Your task to perform on an android device: Open the calendar app, open the side menu, and click the "Day" option Image 0: 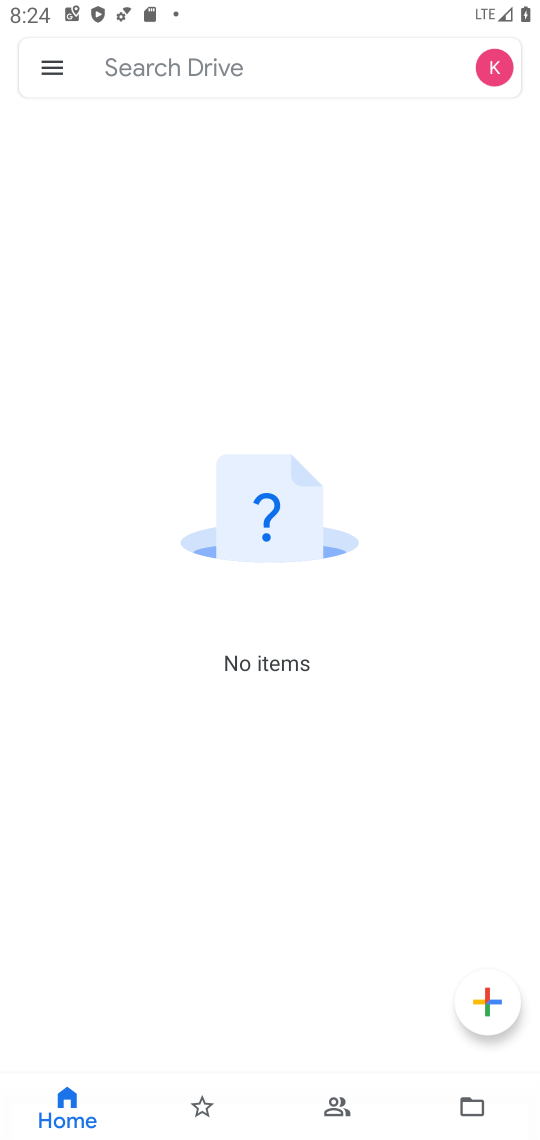
Step 0: press home button
Your task to perform on an android device: Open the calendar app, open the side menu, and click the "Day" option Image 1: 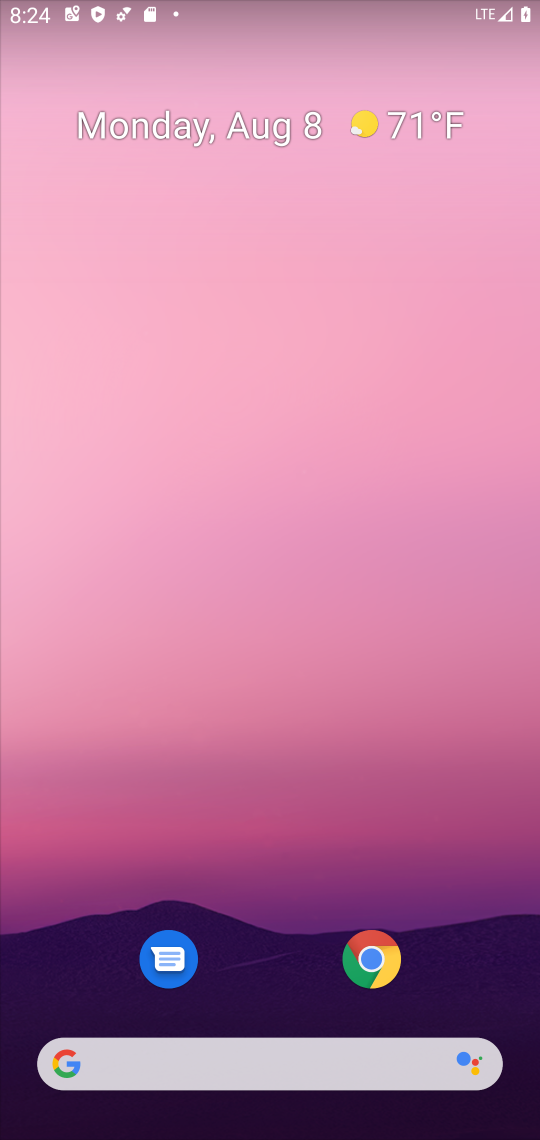
Step 1: drag from (500, 921) to (284, 3)
Your task to perform on an android device: Open the calendar app, open the side menu, and click the "Day" option Image 2: 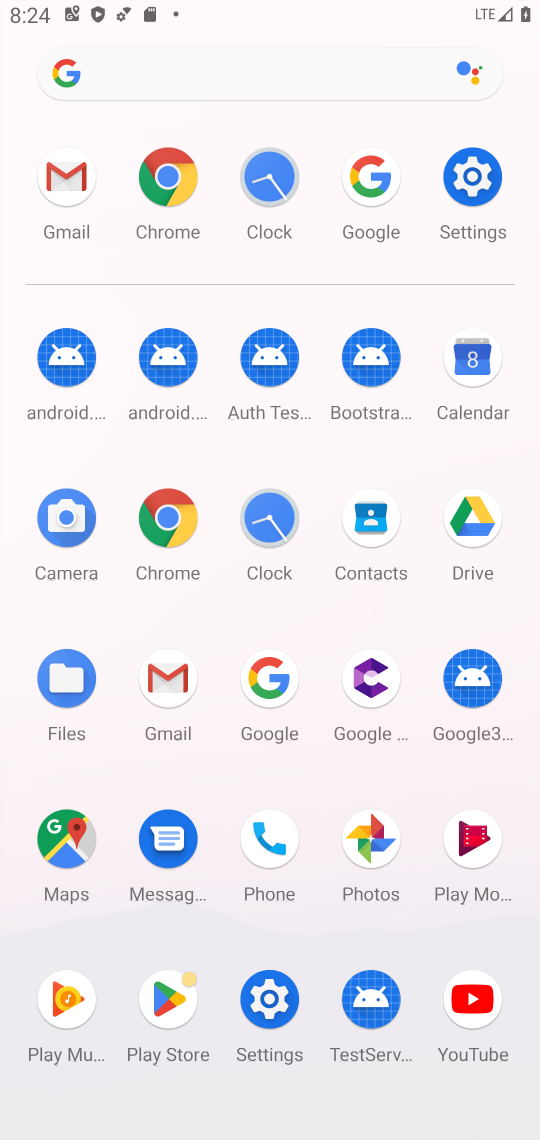
Step 2: click (477, 382)
Your task to perform on an android device: Open the calendar app, open the side menu, and click the "Day" option Image 3: 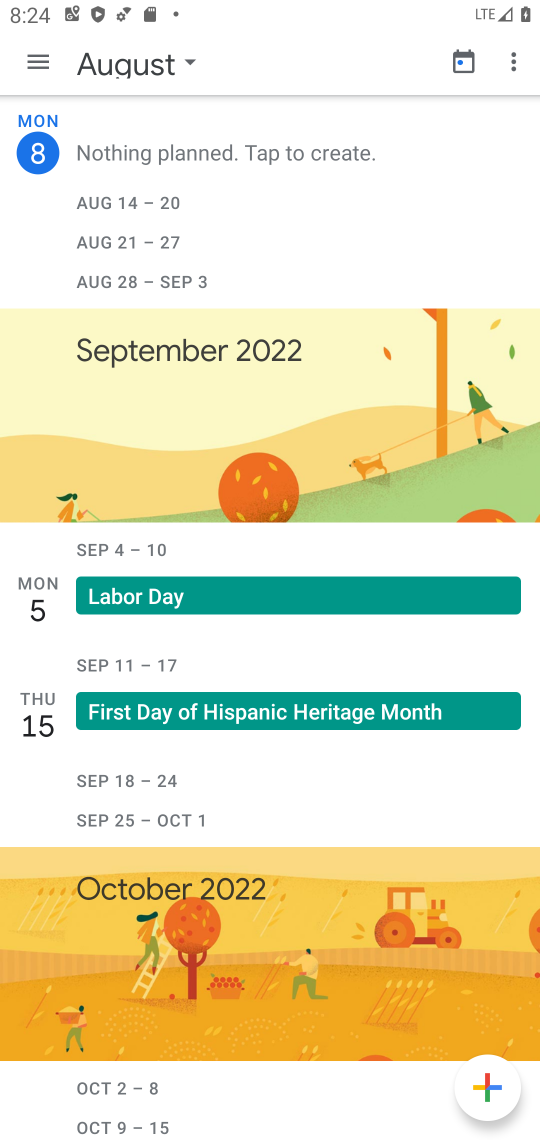
Step 3: click (42, 59)
Your task to perform on an android device: Open the calendar app, open the side menu, and click the "Day" option Image 4: 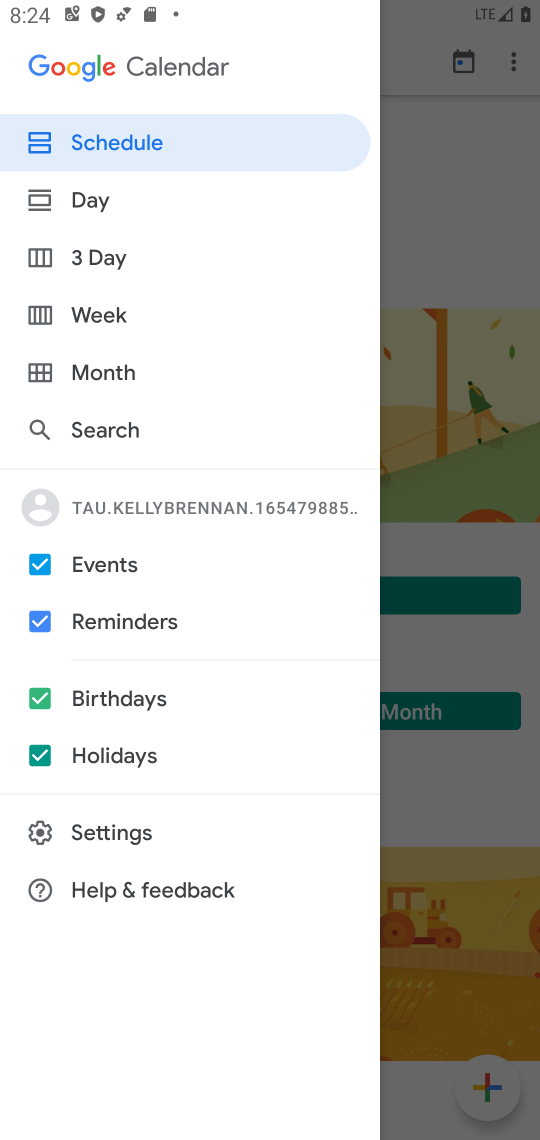
Step 4: click (93, 210)
Your task to perform on an android device: Open the calendar app, open the side menu, and click the "Day" option Image 5: 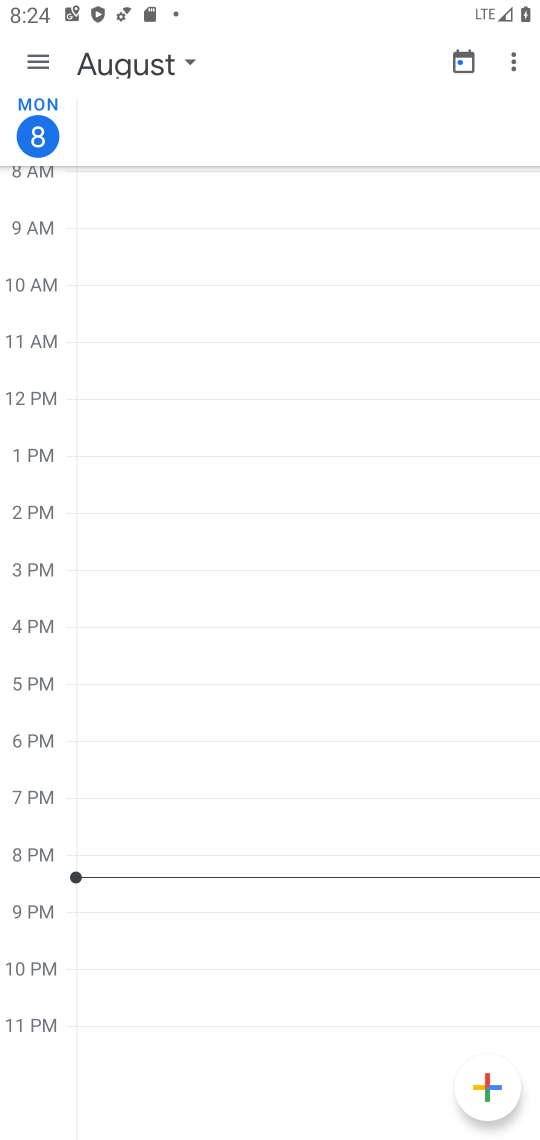
Step 5: task complete